Your task to perform on an android device: What's the weather? Image 0: 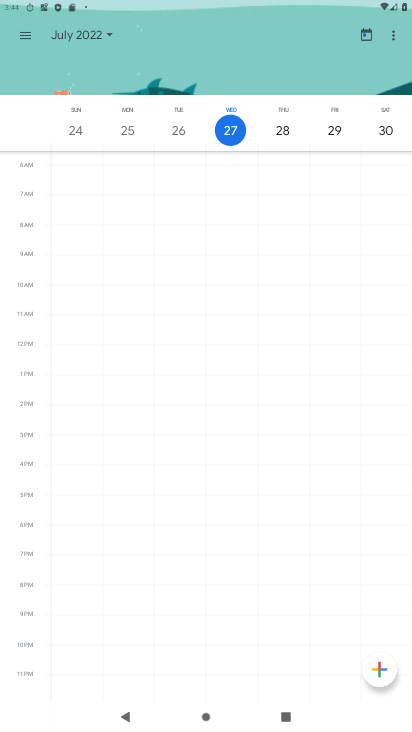
Step 0: press home button
Your task to perform on an android device: What's the weather? Image 1: 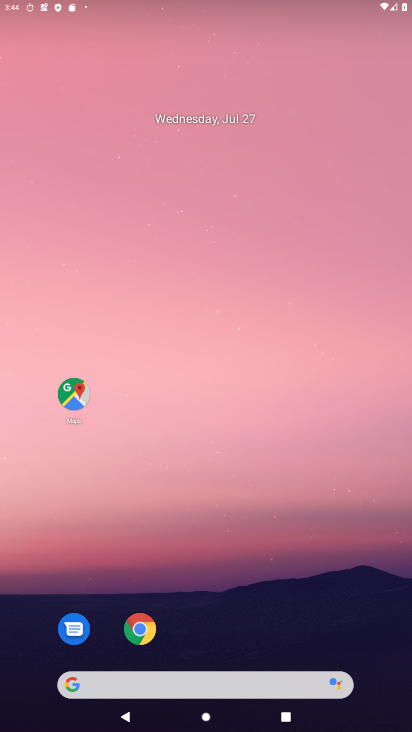
Step 1: drag from (329, 600) to (332, 55)
Your task to perform on an android device: What's the weather? Image 2: 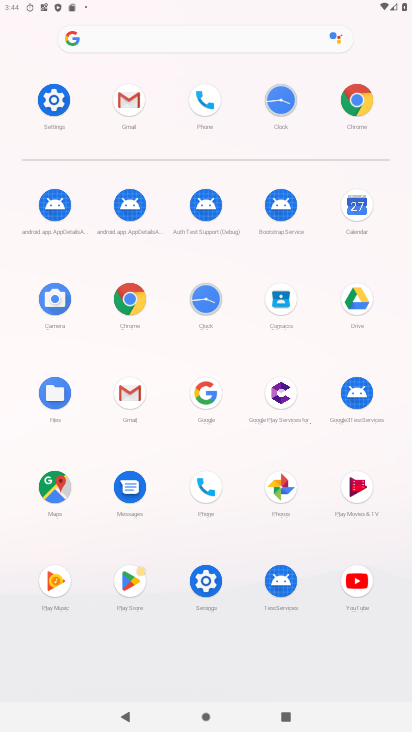
Step 2: click (361, 100)
Your task to perform on an android device: What's the weather? Image 3: 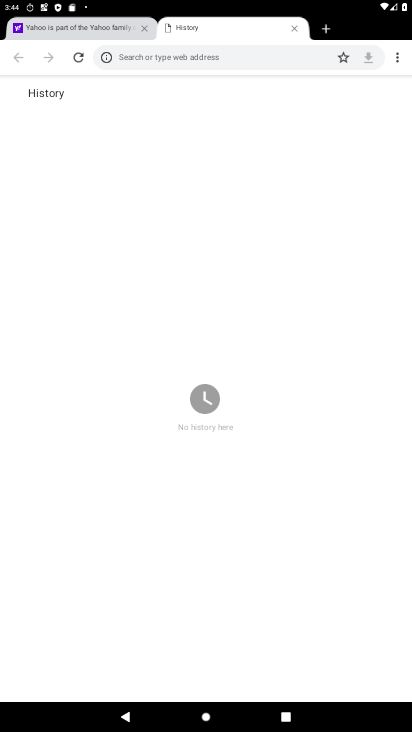
Step 3: click (249, 62)
Your task to perform on an android device: What's the weather? Image 4: 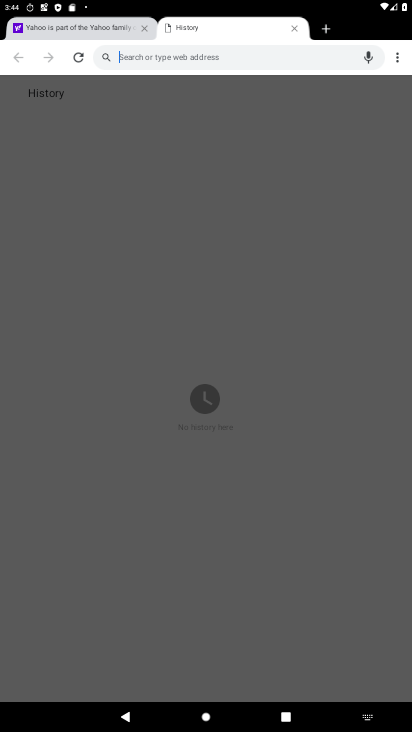
Step 4: type "weather"
Your task to perform on an android device: What's the weather? Image 5: 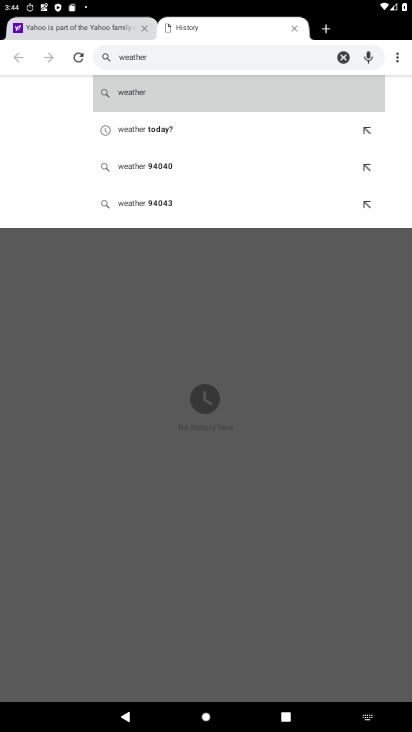
Step 5: click (145, 93)
Your task to perform on an android device: What's the weather? Image 6: 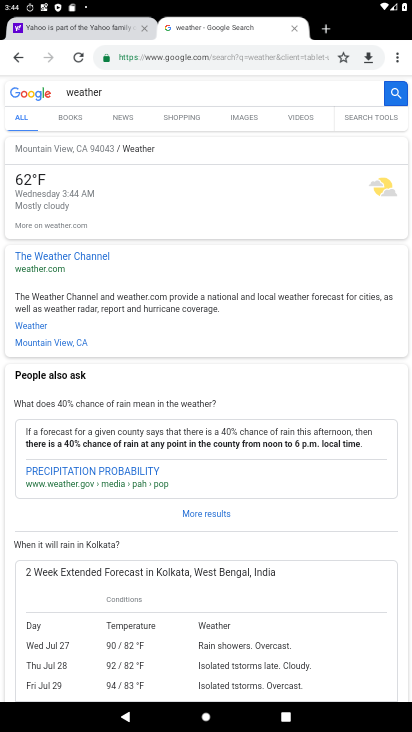
Step 6: click (83, 254)
Your task to perform on an android device: What's the weather? Image 7: 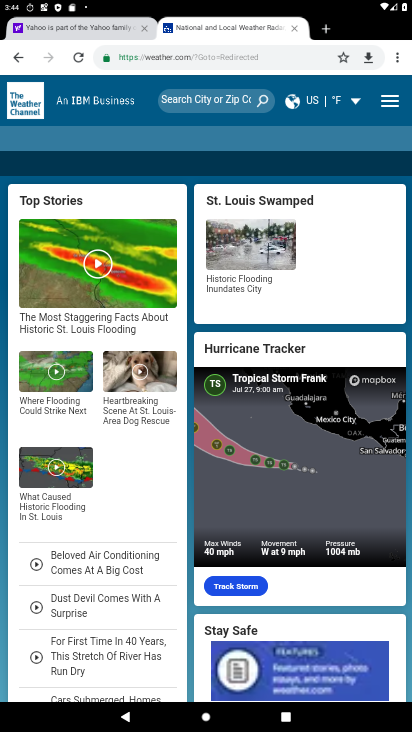
Step 7: click (11, 49)
Your task to perform on an android device: What's the weather? Image 8: 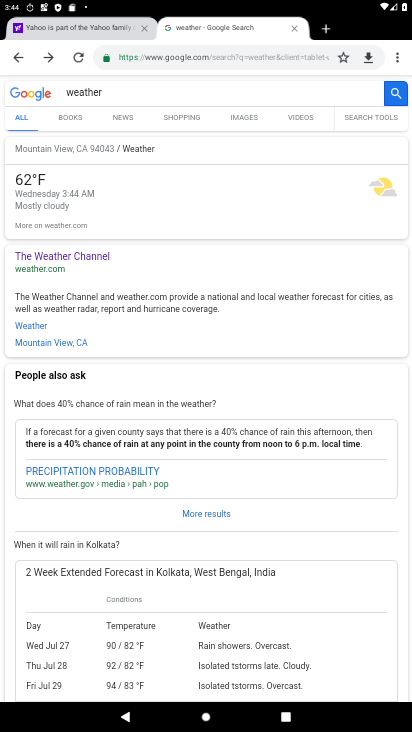
Step 8: task complete